Your task to perform on an android device: Search for vegetarian restaurants on Maps Image 0: 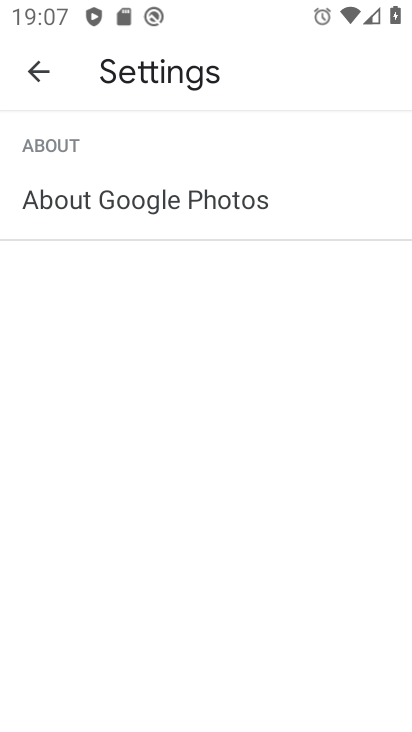
Step 0: press home button
Your task to perform on an android device: Search for vegetarian restaurants on Maps Image 1: 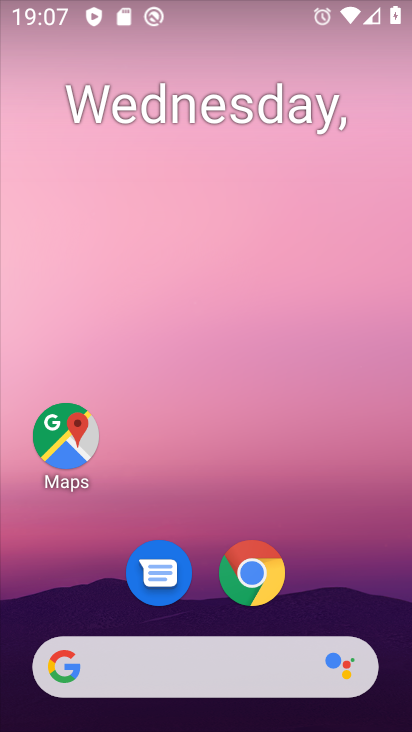
Step 1: click (76, 442)
Your task to perform on an android device: Search for vegetarian restaurants on Maps Image 2: 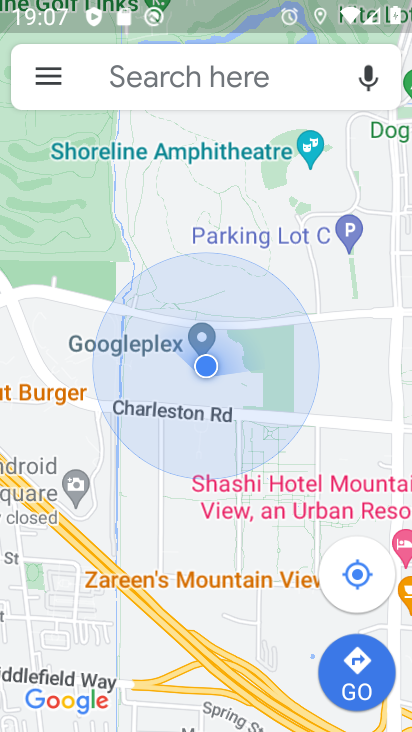
Step 2: click (182, 65)
Your task to perform on an android device: Search for vegetarian restaurants on Maps Image 3: 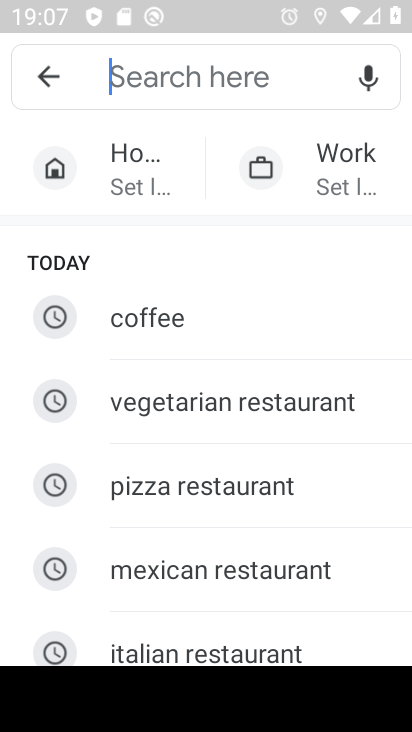
Step 3: click (197, 419)
Your task to perform on an android device: Search for vegetarian restaurants on Maps Image 4: 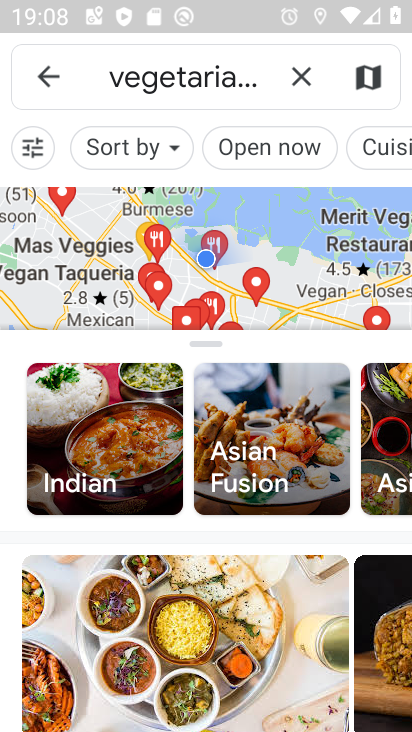
Step 4: task complete